Your task to perform on an android device: change the clock display to show seconds Image 0: 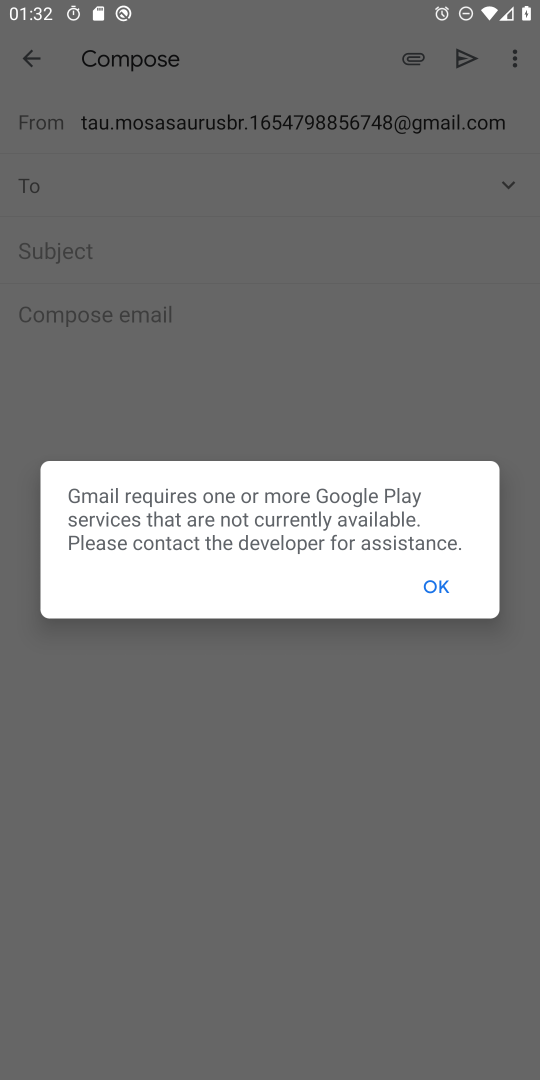
Step 0: press home button
Your task to perform on an android device: change the clock display to show seconds Image 1: 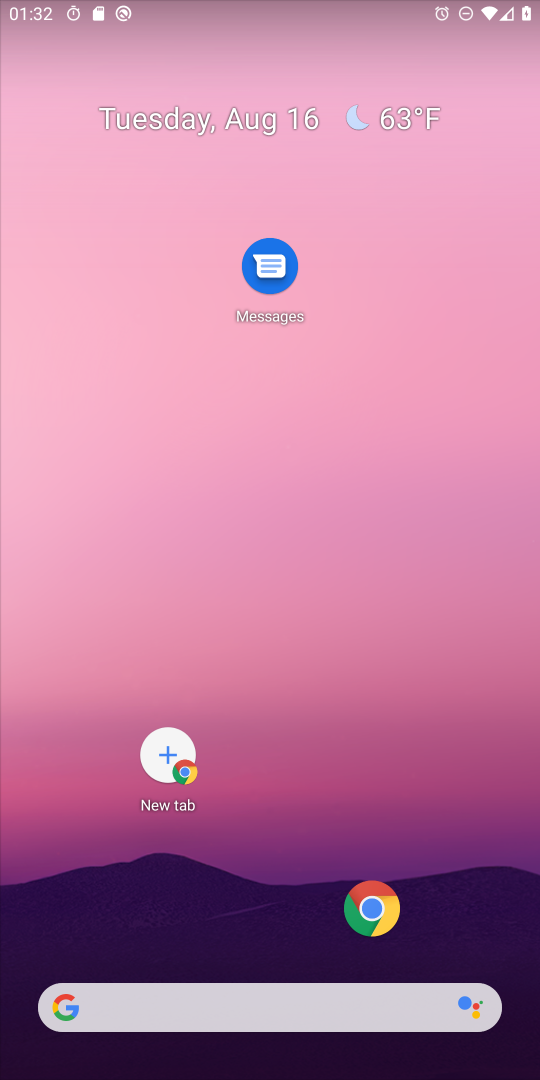
Step 1: drag from (279, 410) to (268, 276)
Your task to perform on an android device: change the clock display to show seconds Image 2: 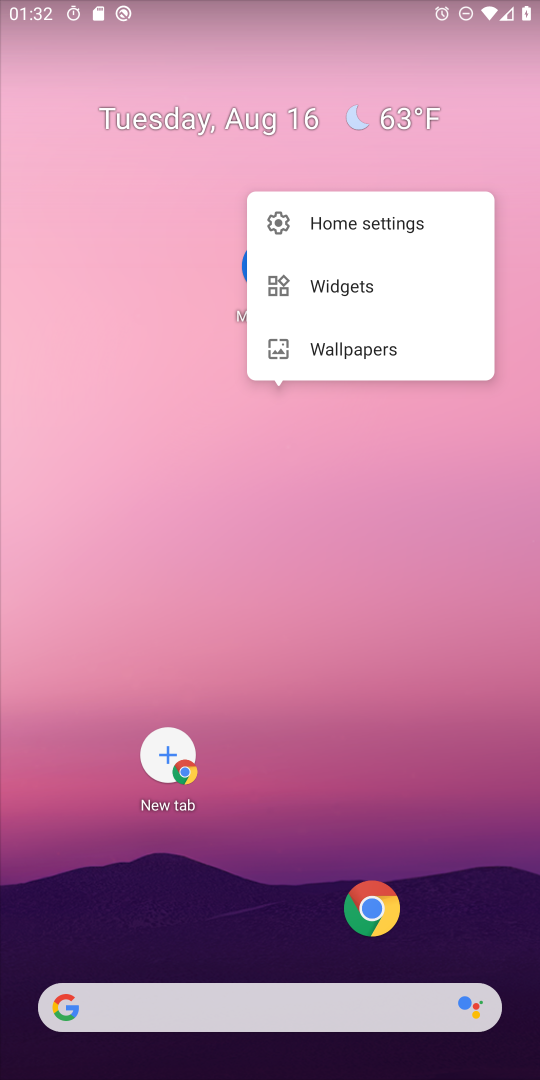
Step 2: drag from (339, 754) to (205, 169)
Your task to perform on an android device: change the clock display to show seconds Image 3: 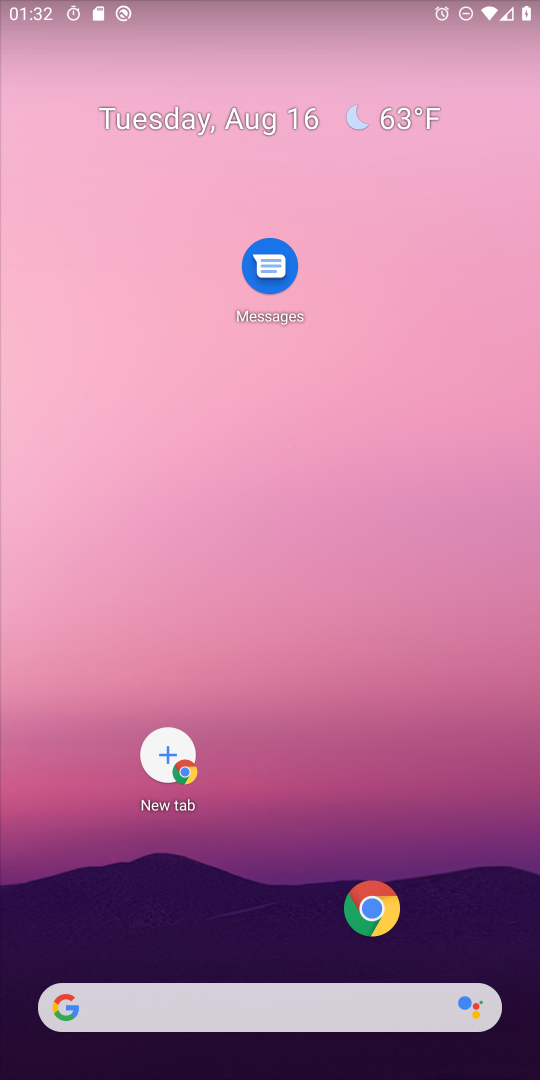
Step 3: drag from (191, 898) to (198, 46)
Your task to perform on an android device: change the clock display to show seconds Image 4: 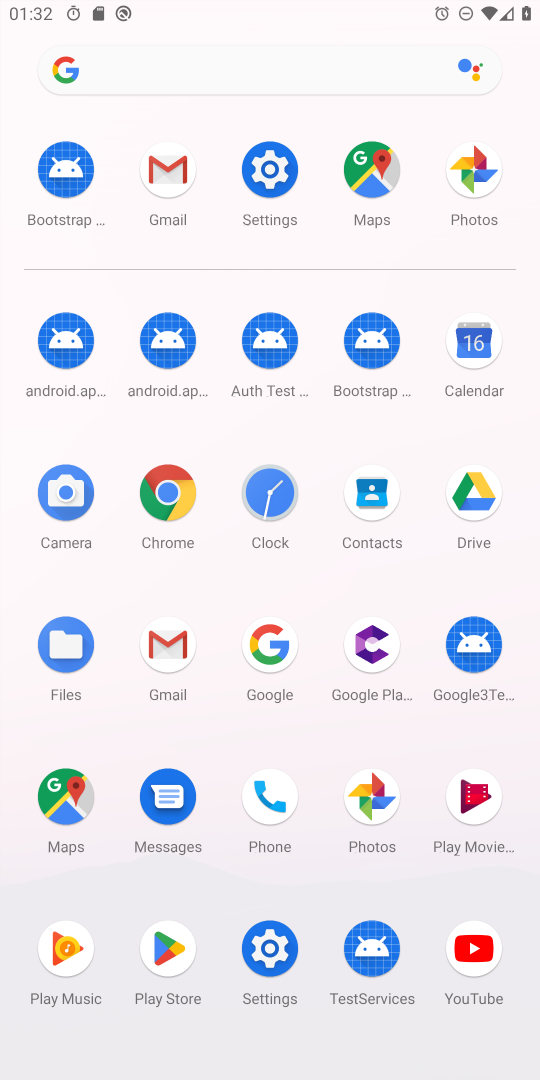
Step 4: click (280, 503)
Your task to perform on an android device: change the clock display to show seconds Image 5: 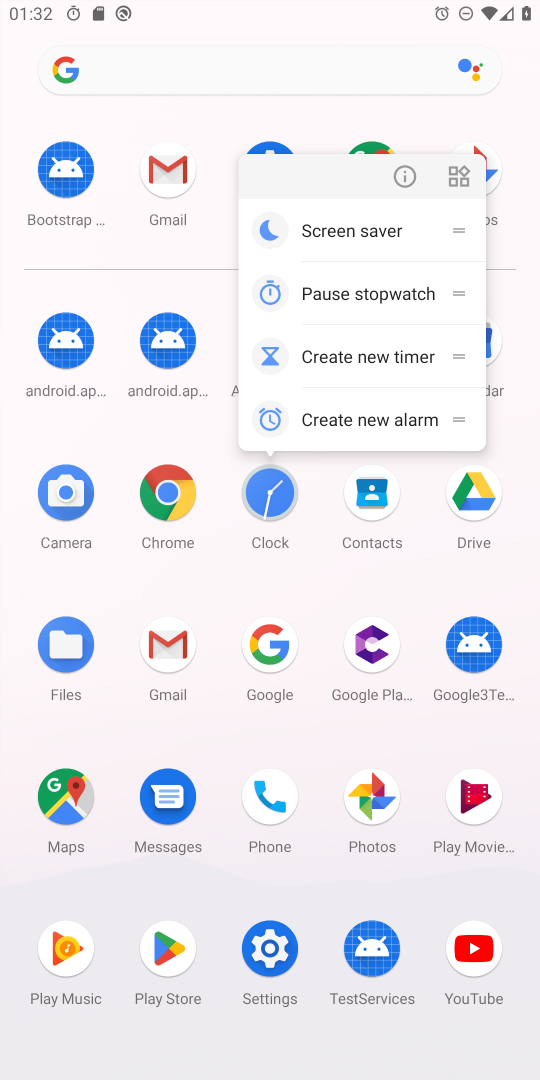
Step 5: click (264, 499)
Your task to perform on an android device: change the clock display to show seconds Image 6: 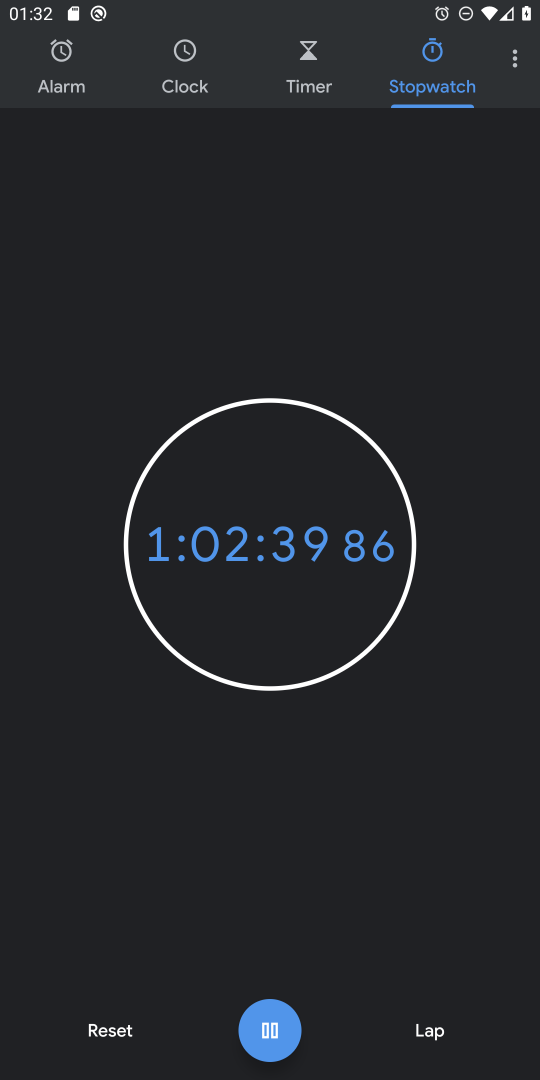
Step 6: click (526, 55)
Your task to perform on an android device: change the clock display to show seconds Image 7: 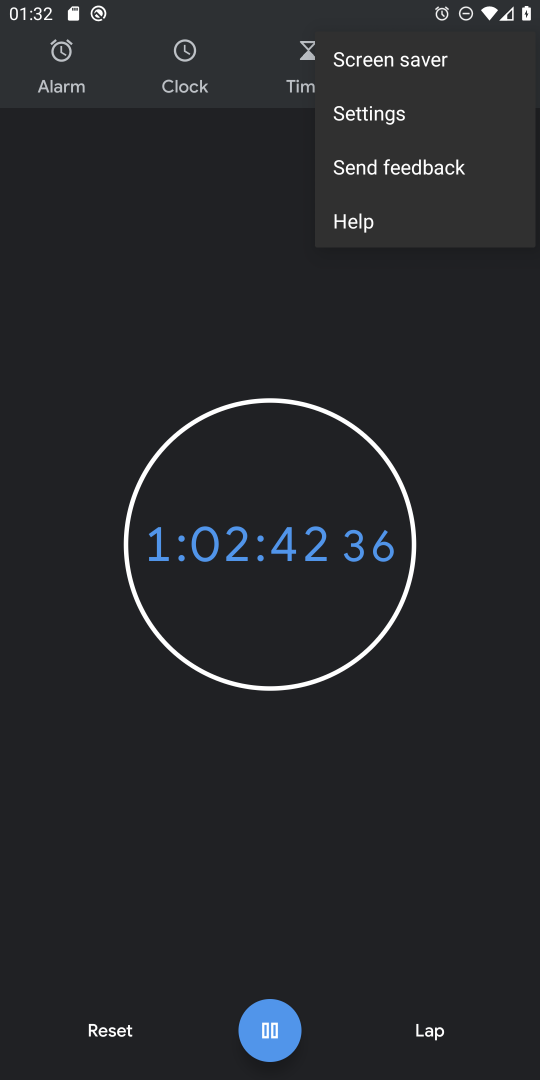
Step 7: click (411, 125)
Your task to perform on an android device: change the clock display to show seconds Image 8: 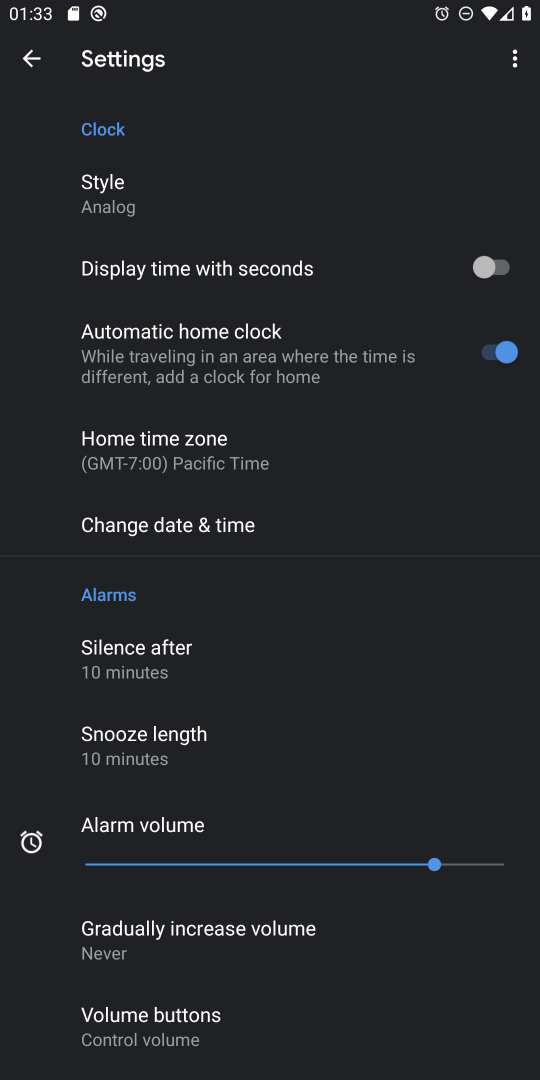
Step 8: click (501, 288)
Your task to perform on an android device: change the clock display to show seconds Image 9: 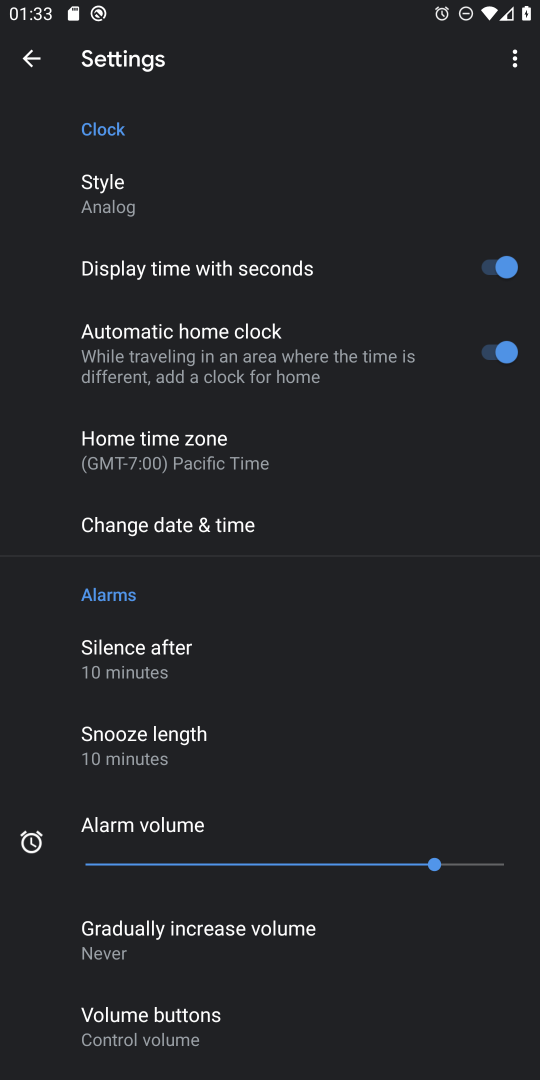
Step 9: task complete